Your task to perform on an android device: clear all cookies in the chrome app Image 0: 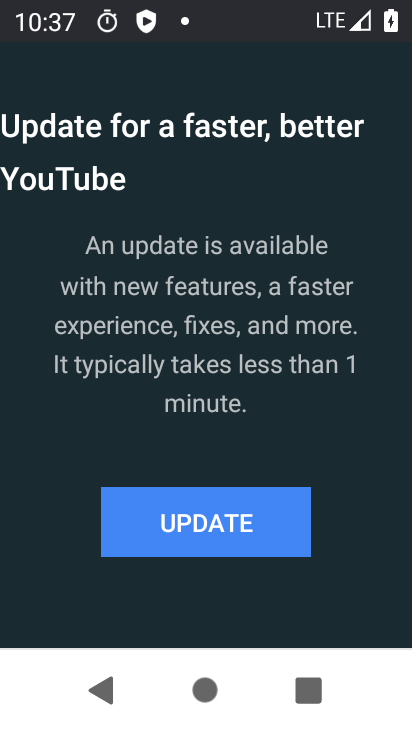
Step 0: press home button
Your task to perform on an android device: clear all cookies in the chrome app Image 1: 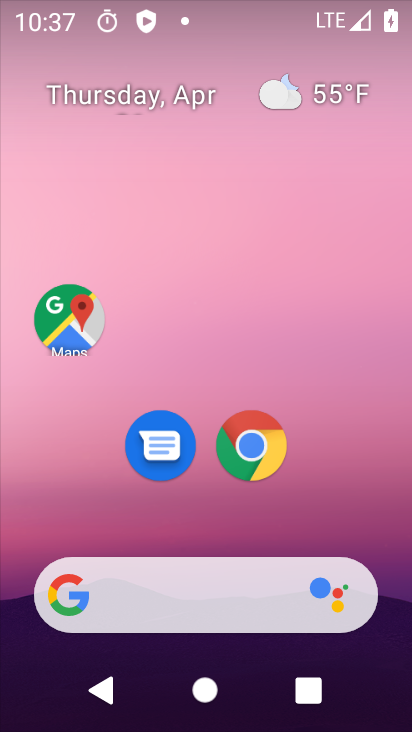
Step 1: click (229, 448)
Your task to perform on an android device: clear all cookies in the chrome app Image 2: 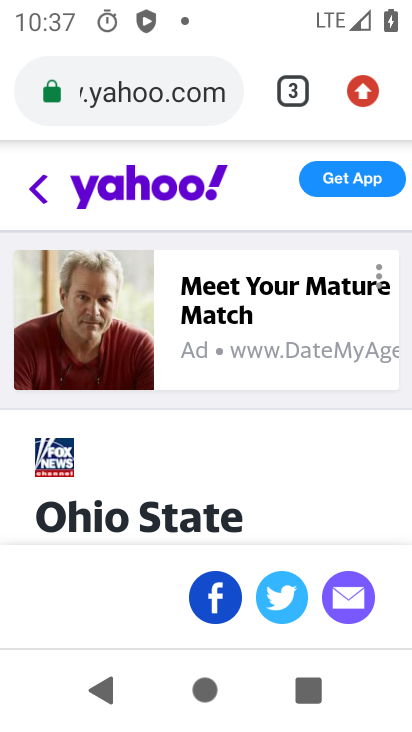
Step 2: click (357, 93)
Your task to perform on an android device: clear all cookies in the chrome app Image 3: 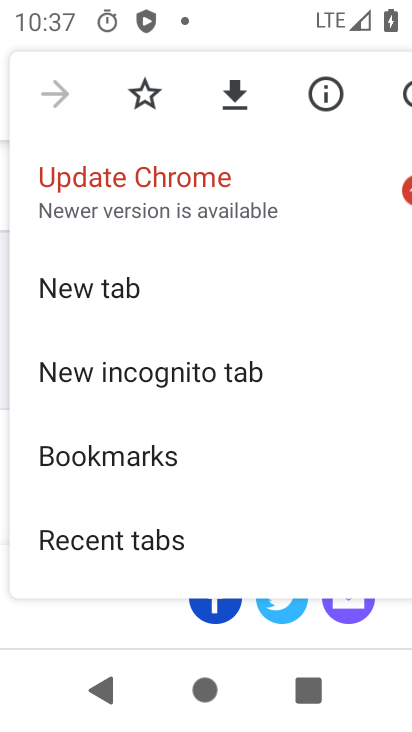
Step 3: drag from (251, 470) to (256, 155)
Your task to perform on an android device: clear all cookies in the chrome app Image 4: 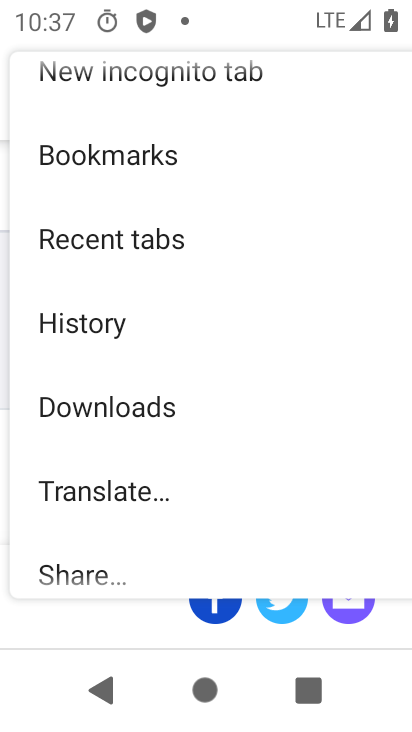
Step 4: drag from (222, 431) to (196, 68)
Your task to perform on an android device: clear all cookies in the chrome app Image 5: 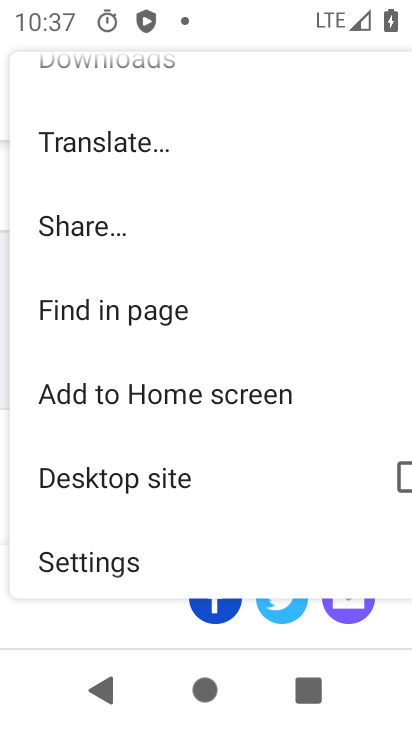
Step 5: drag from (221, 410) to (191, 21)
Your task to perform on an android device: clear all cookies in the chrome app Image 6: 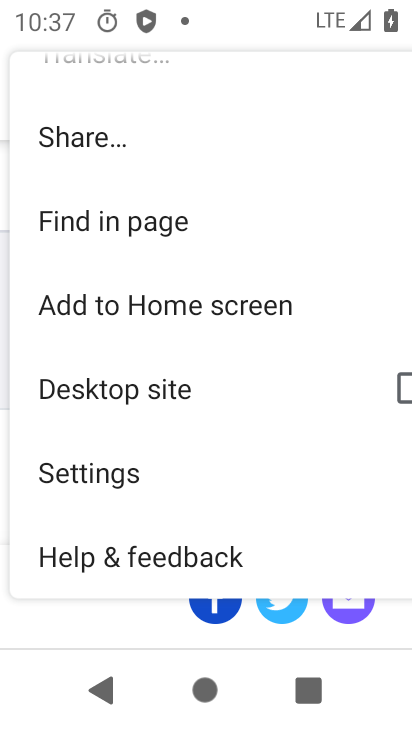
Step 6: click (96, 487)
Your task to perform on an android device: clear all cookies in the chrome app Image 7: 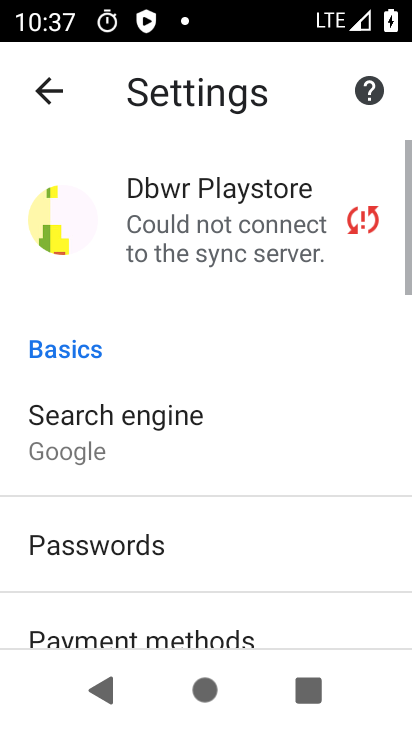
Step 7: drag from (231, 538) to (190, 103)
Your task to perform on an android device: clear all cookies in the chrome app Image 8: 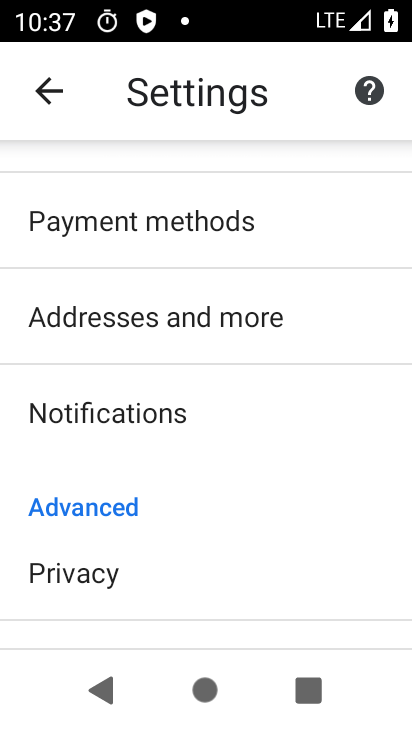
Step 8: drag from (199, 424) to (183, 119)
Your task to perform on an android device: clear all cookies in the chrome app Image 9: 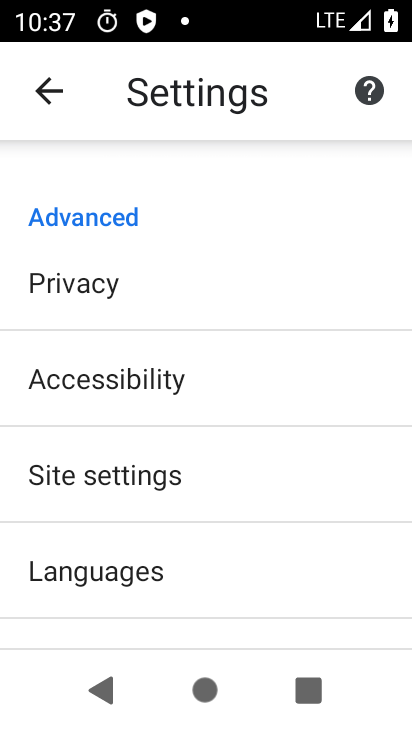
Step 9: click (45, 280)
Your task to perform on an android device: clear all cookies in the chrome app Image 10: 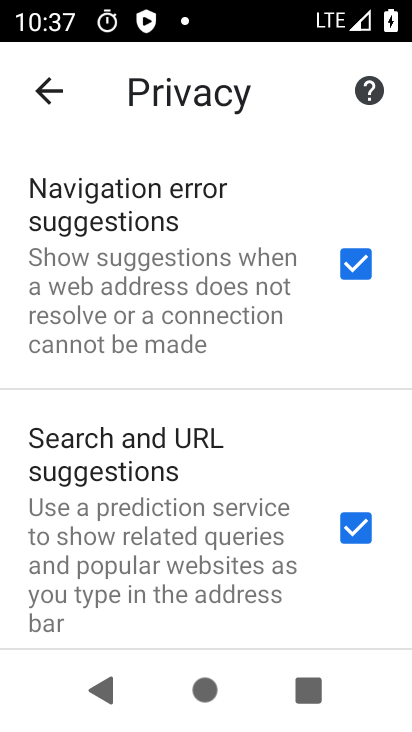
Step 10: drag from (219, 563) to (159, 22)
Your task to perform on an android device: clear all cookies in the chrome app Image 11: 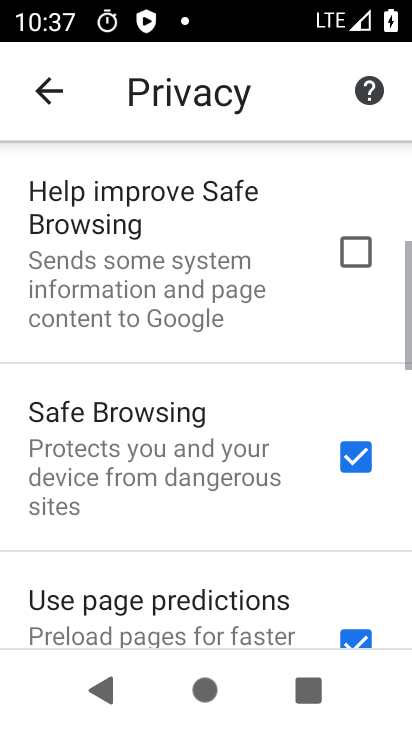
Step 11: drag from (189, 450) to (171, 71)
Your task to perform on an android device: clear all cookies in the chrome app Image 12: 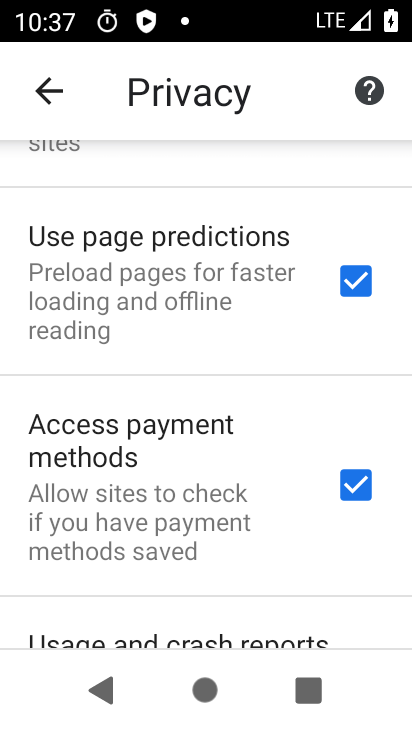
Step 12: drag from (121, 518) to (115, 93)
Your task to perform on an android device: clear all cookies in the chrome app Image 13: 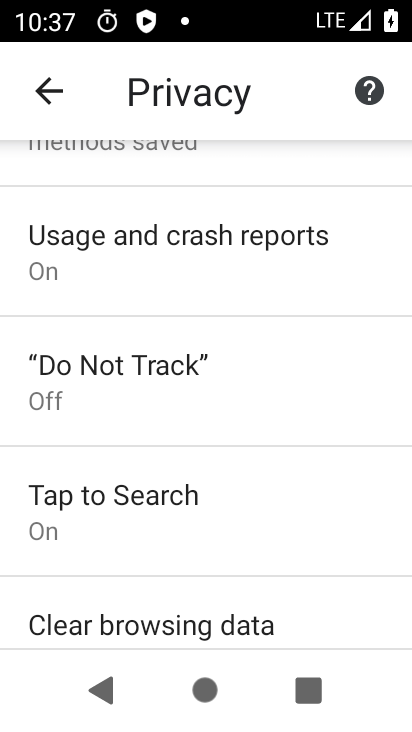
Step 13: drag from (109, 475) to (99, 144)
Your task to perform on an android device: clear all cookies in the chrome app Image 14: 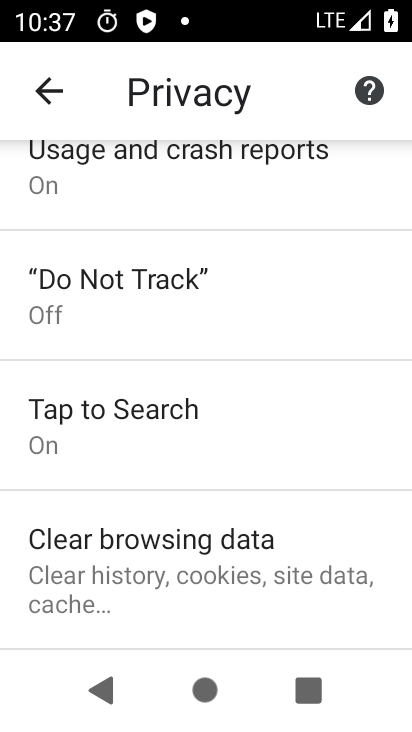
Step 14: click (100, 563)
Your task to perform on an android device: clear all cookies in the chrome app Image 15: 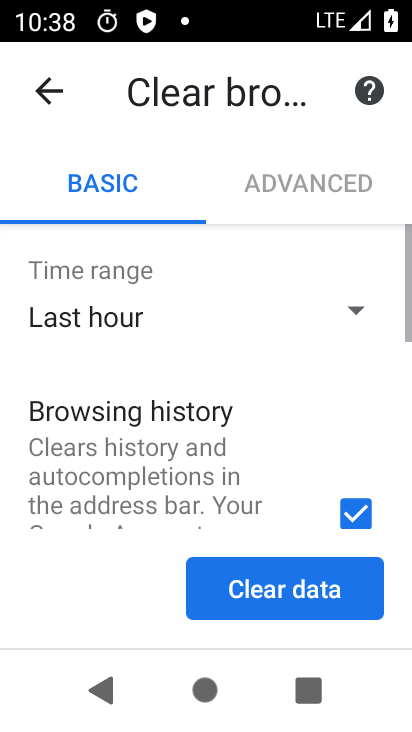
Step 15: drag from (124, 453) to (121, 191)
Your task to perform on an android device: clear all cookies in the chrome app Image 16: 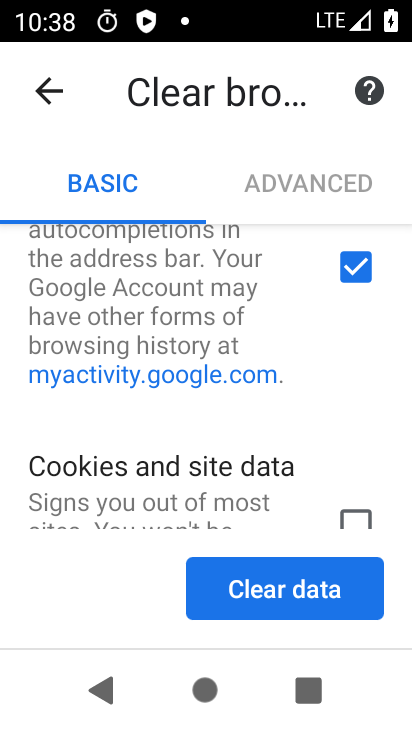
Step 16: click (350, 273)
Your task to perform on an android device: clear all cookies in the chrome app Image 17: 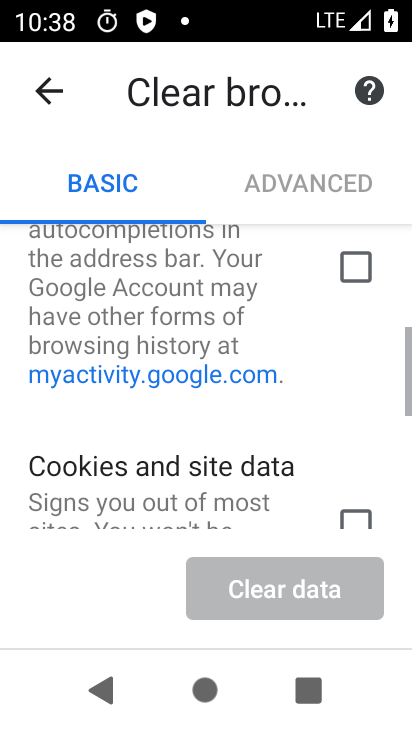
Step 17: drag from (147, 378) to (136, 186)
Your task to perform on an android device: clear all cookies in the chrome app Image 18: 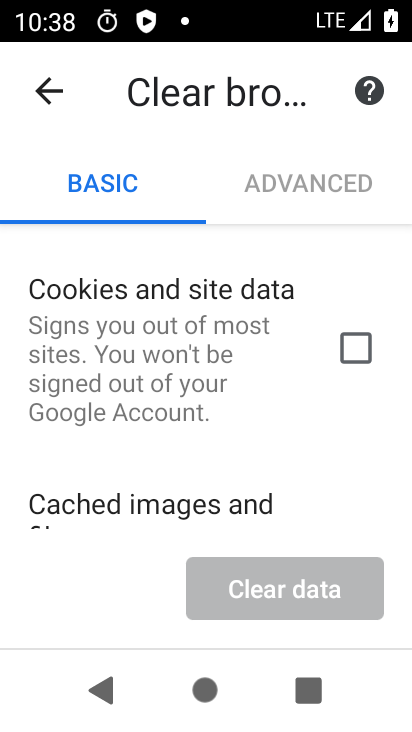
Step 18: click (368, 356)
Your task to perform on an android device: clear all cookies in the chrome app Image 19: 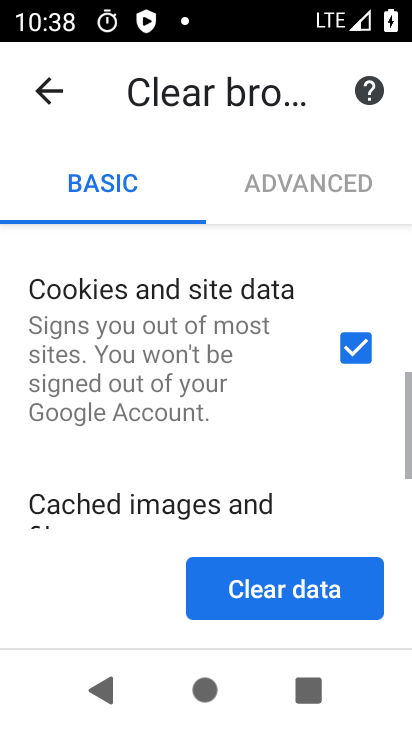
Step 19: drag from (143, 440) to (116, 207)
Your task to perform on an android device: clear all cookies in the chrome app Image 20: 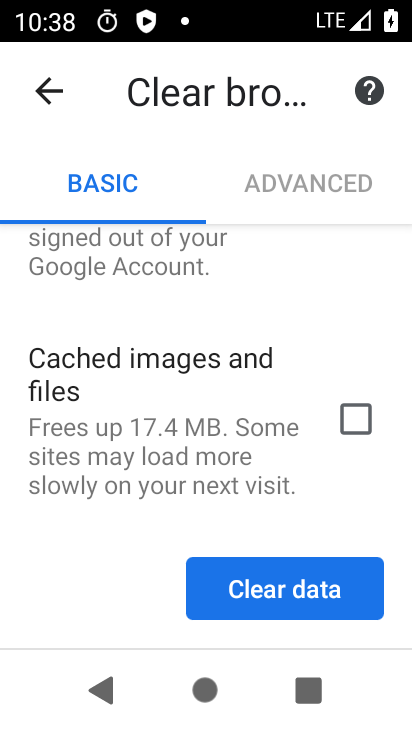
Step 20: click (279, 591)
Your task to perform on an android device: clear all cookies in the chrome app Image 21: 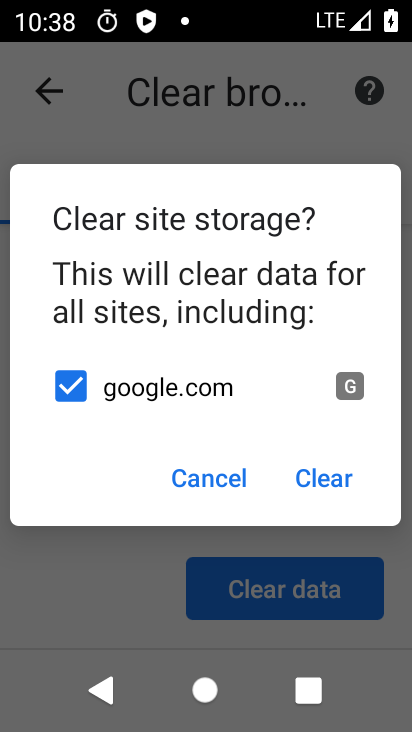
Step 21: click (319, 480)
Your task to perform on an android device: clear all cookies in the chrome app Image 22: 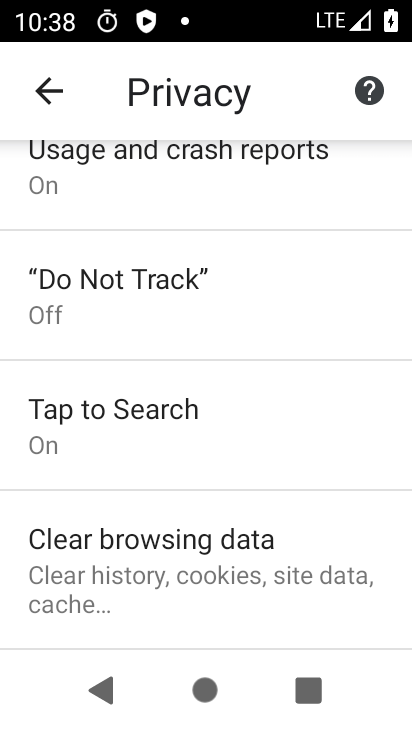
Step 22: task complete